Your task to perform on an android device: Open calendar and show me the third week of next month Image 0: 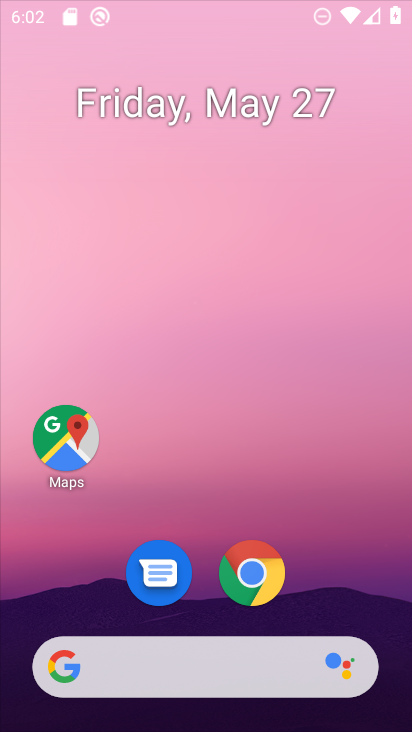
Step 0: press home button
Your task to perform on an android device: Open calendar and show me the third week of next month Image 1: 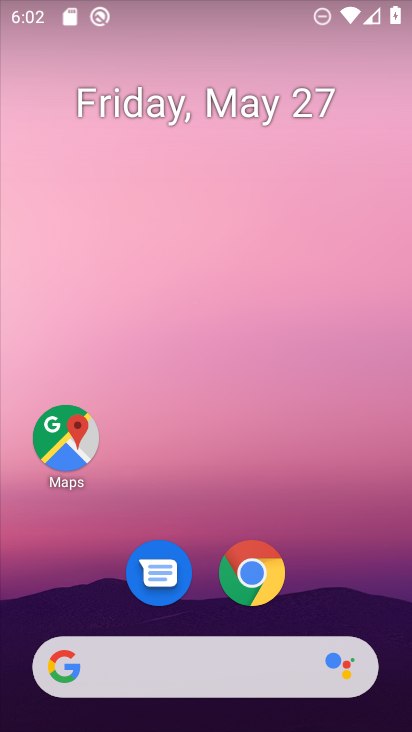
Step 1: drag from (210, 614) to (257, 2)
Your task to perform on an android device: Open calendar and show me the third week of next month Image 2: 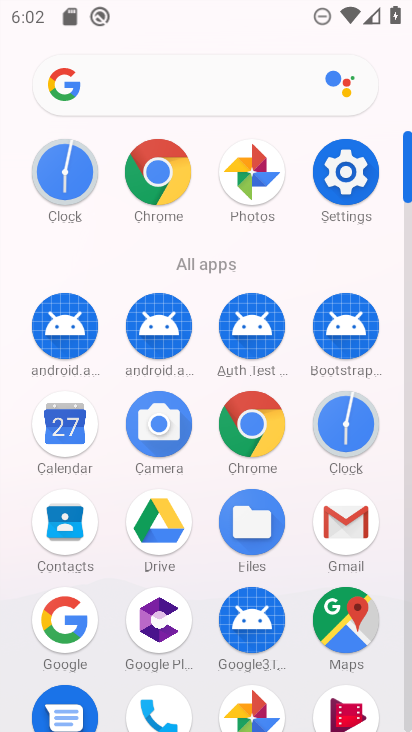
Step 2: click (63, 422)
Your task to perform on an android device: Open calendar and show me the third week of next month Image 3: 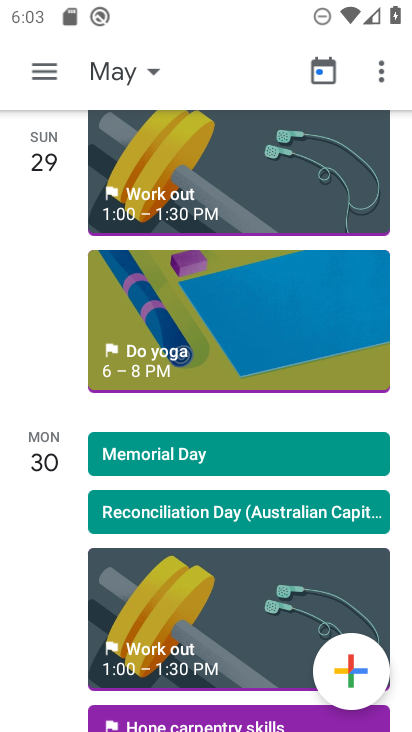
Step 3: click (38, 77)
Your task to perform on an android device: Open calendar and show me the third week of next month Image 4: 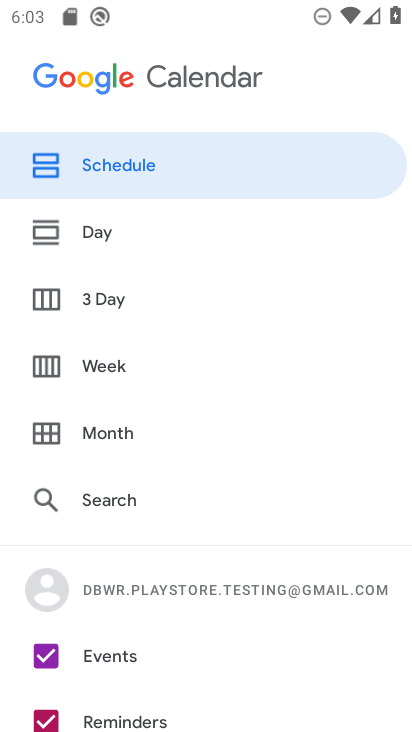
Step 4: click (73, 359)
Your task to perform on an android device: Open calendar and show me the third week of next month Image 5: 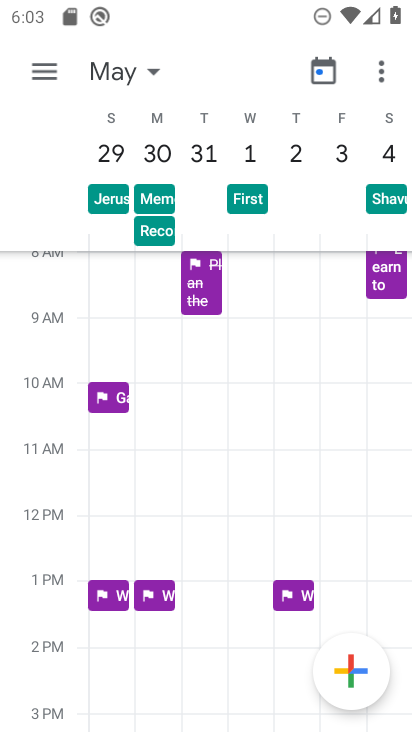
Step 5: drag from (382, 156) to (25, 155)
Your task to perform on an android device: Open calendar and show me the third week of next month Image 6: 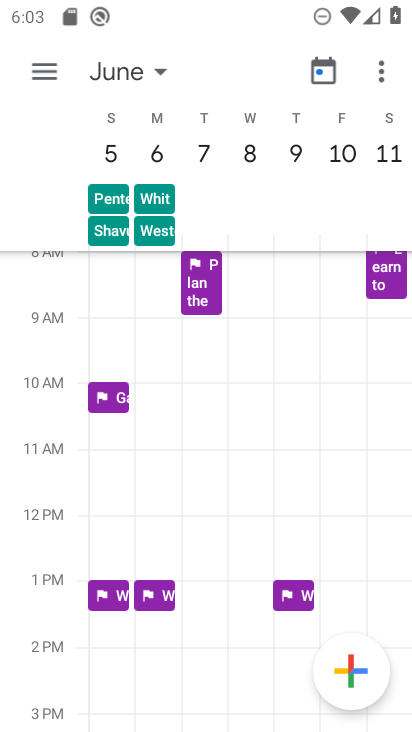
Step 6: drag from (383, 157) to (86, 154)
Your task to perform on an android device: Open calendar and show me the third week of next month Image 7: 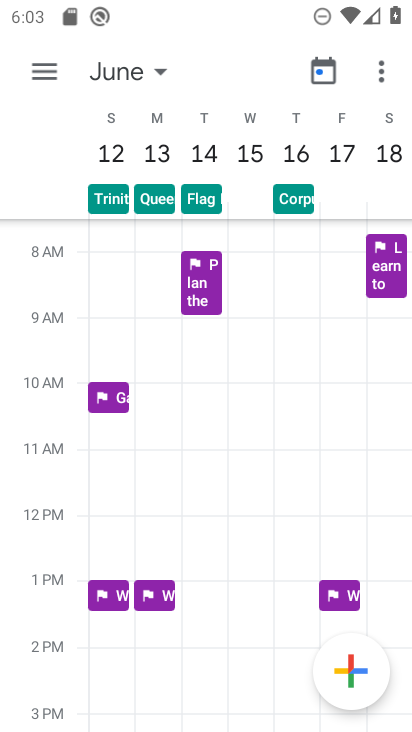
Step 7: click (115, 151)
Your task to perform on an android device: Open calendar and show me the third week of next month Image 8: 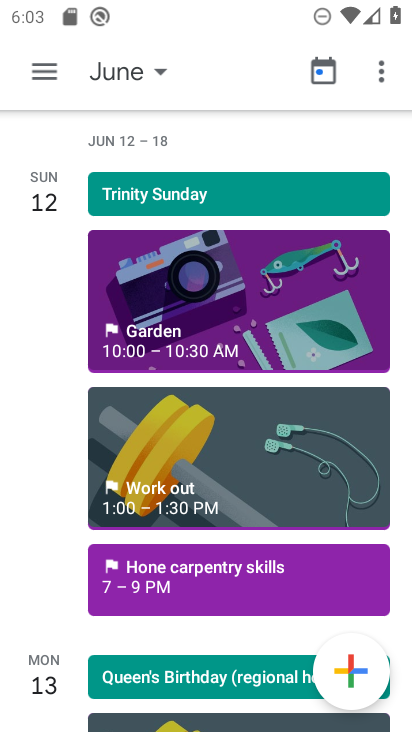
Step 8: task complete